Your task to perform on an android device: Open battery settings Image 0: 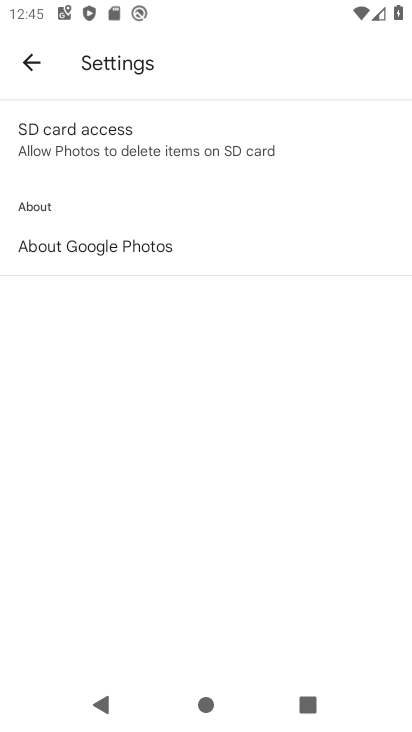
Step 0: press home button
Your task to perform on an android device: Open battery settings Image 1: 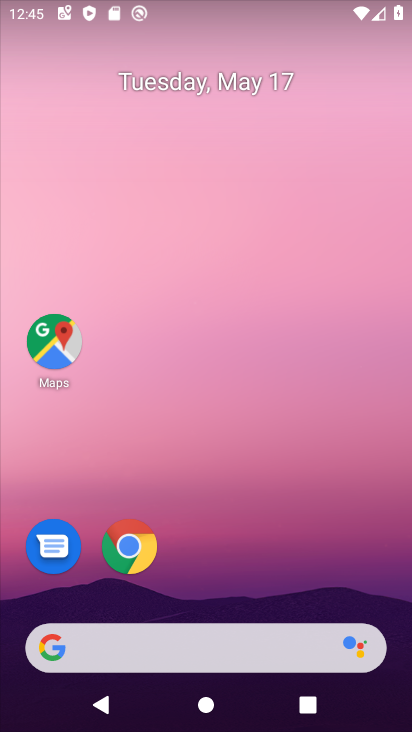
Step 1: drag from (395, 620) to (342, 80)
Your task to perform on an android device: Open battery settings Image 2: 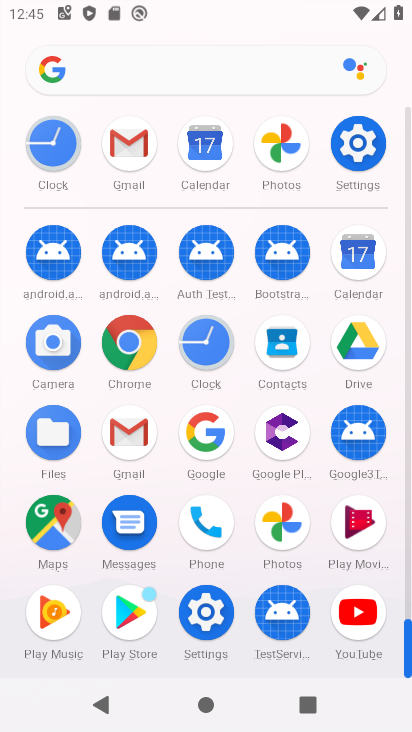
Step 2: click (409, 607)
Your task to perform on an android device: Open battery settings Image 3: 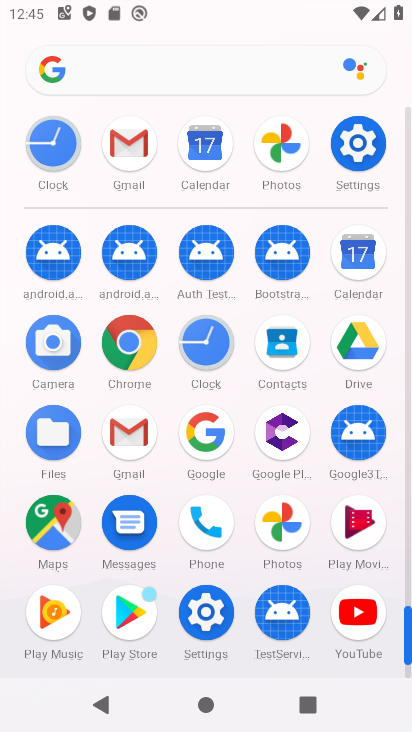
Step 3: click (206, 611)
Your task to perform on an android device: Open battery settings Image 4: 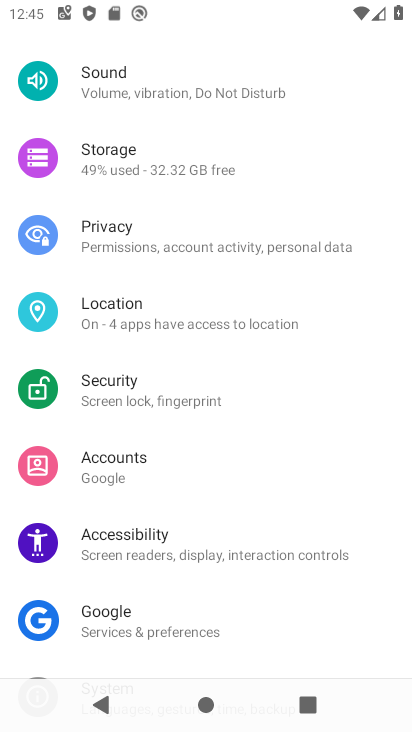
Step 4: drag from (363, 154) to (354, 559)
Your task to perform on an android device: Open battery settings Image 5: 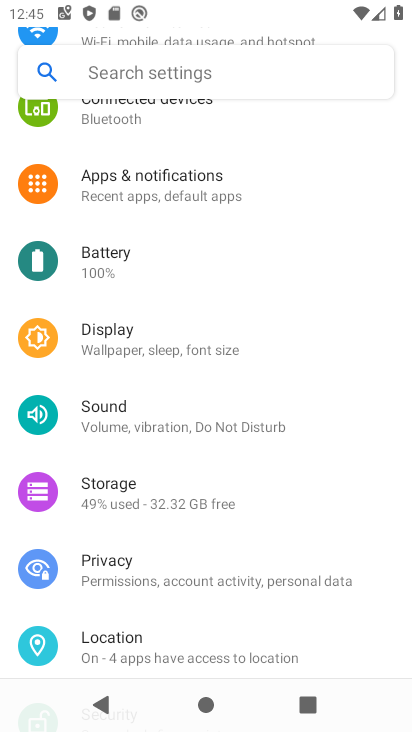
Step 5: click (80, 254)
Your task to perform on an android device: Open battery settings Image 6: 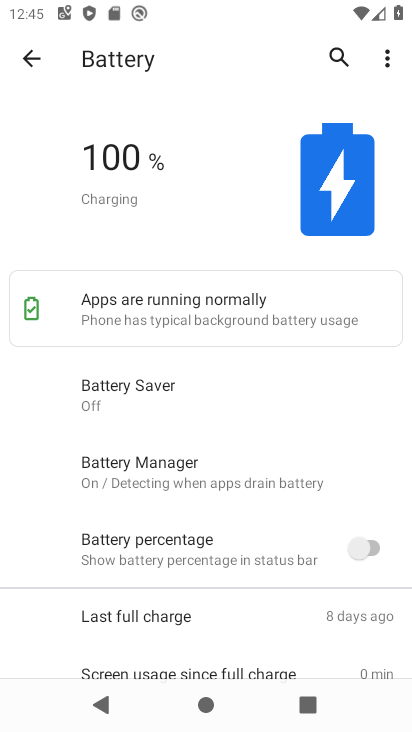
Step 6: task complete